Your task to perform on an android device: turn off picture-in-picture Image 0: 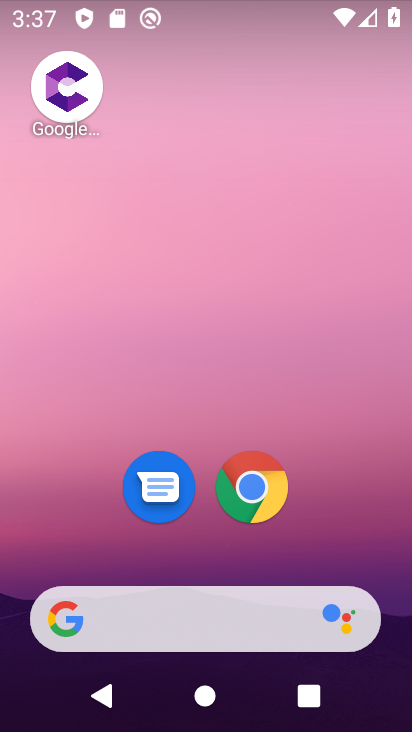
Step 0: click (261, 484)
Your task to perform on an android device: turn off picture-in-picture Image 1: 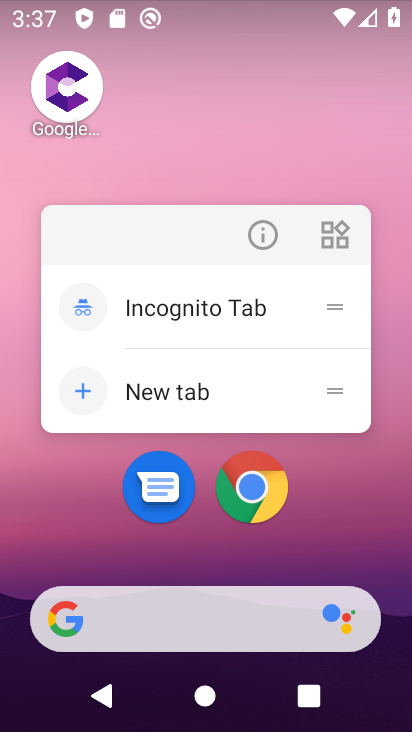
Step 1: click (263, 225)
Your task to perform on an android device: turn off picture-in-picture Image 2: 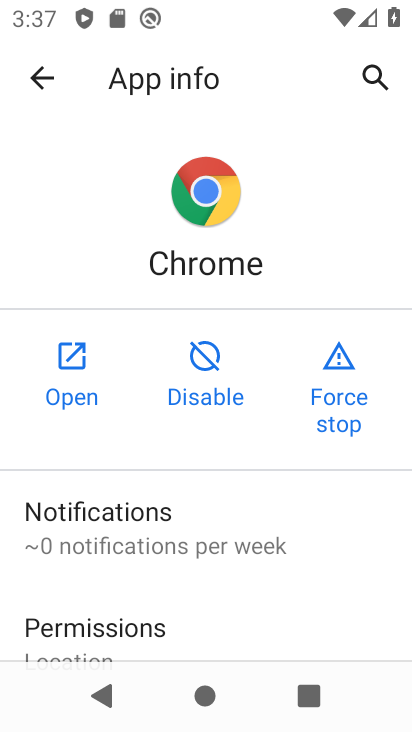
Step 2: drag from (152, 548) to (207, 203)
Your task to perform on an android device: turn off picture-in-picture Image 3: 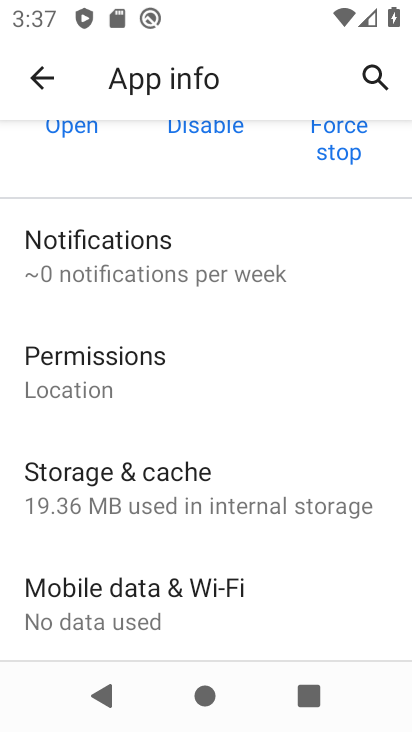
Step 3: drag from (198, 482) to (249, 160)
Your task to perform on an android device: turn off picture-in-picture Image 4: 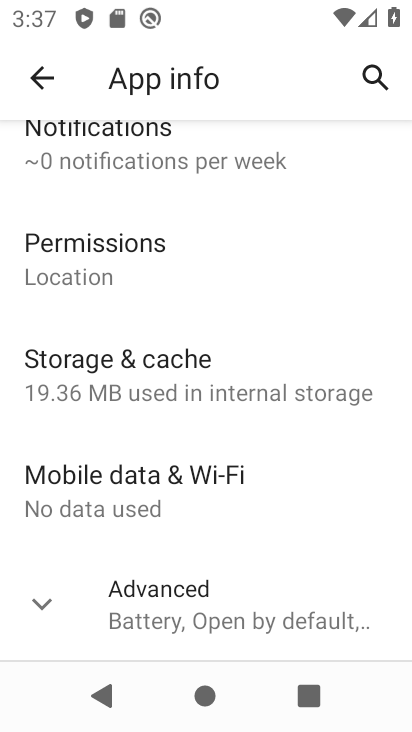
Step 4: click (200, 610)
Your task to perform on an android device: turn off picture-in-picture Image 5: 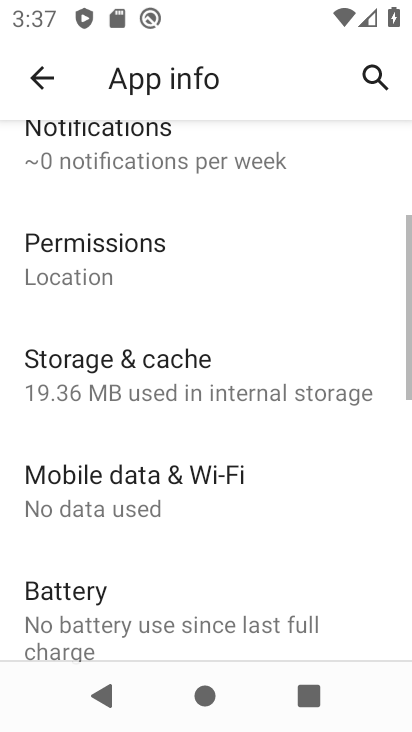
Step 5: drag from (163, 625) to (208, 331)
Your task to perform on an android device: turn off picture-in-picture Image 6: 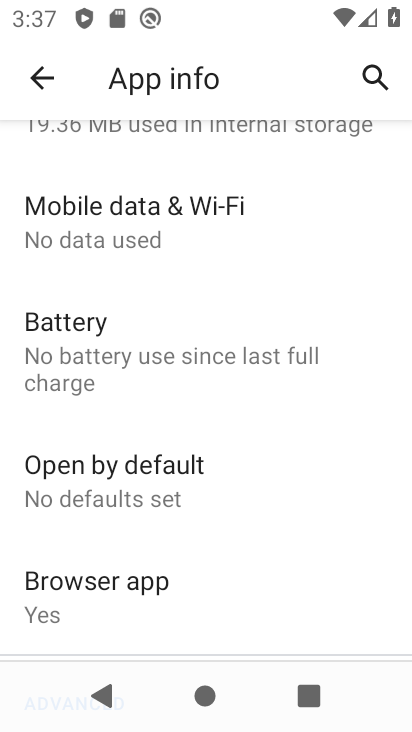
Step 6: drag from (143, 562) to (254, 127)
Your task to perform on an android device: turn off picture-in-picture Image 7: 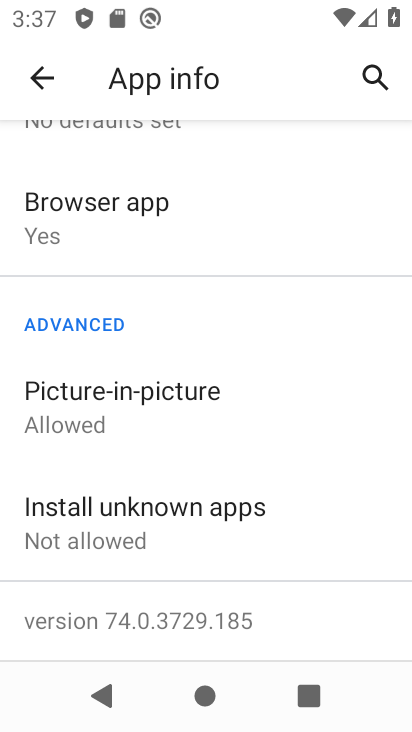
Step 7: click (117, 417)
Your task to perform on an android device: turn off picture-in-picture Image 8: 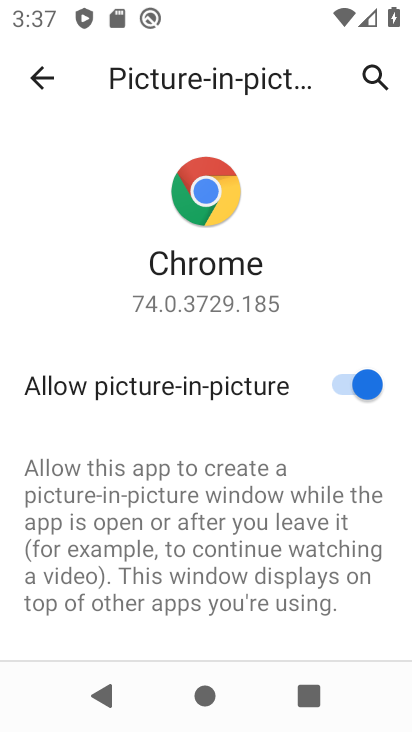
Step 8: click (324, 385)
Your task to perform on an android device: turn off picture-in-picture Image 9: 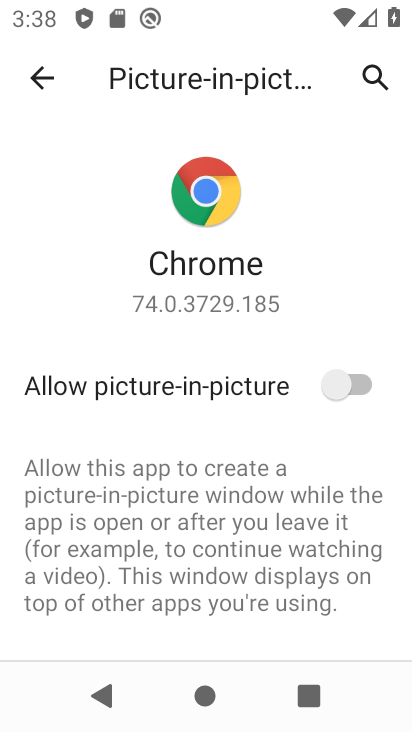
Step 9: task complete